Your task to perform on an android device: open app "Google Play Games" Image 0: 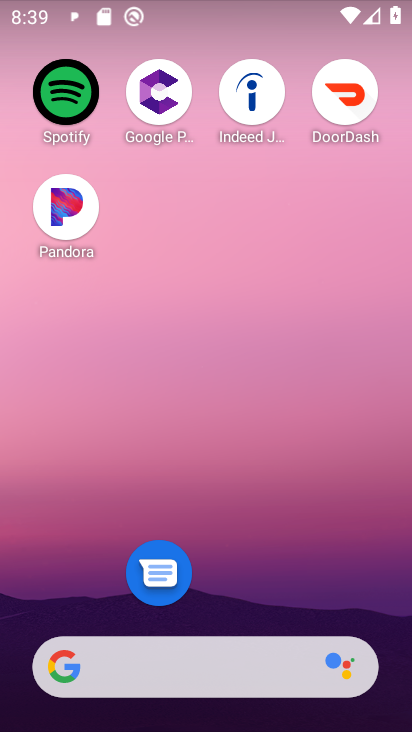
Step 0: drag from (227, 592) to (225, 467)
Your task to perform on an android device: open app "Google Play Games" Image 1: 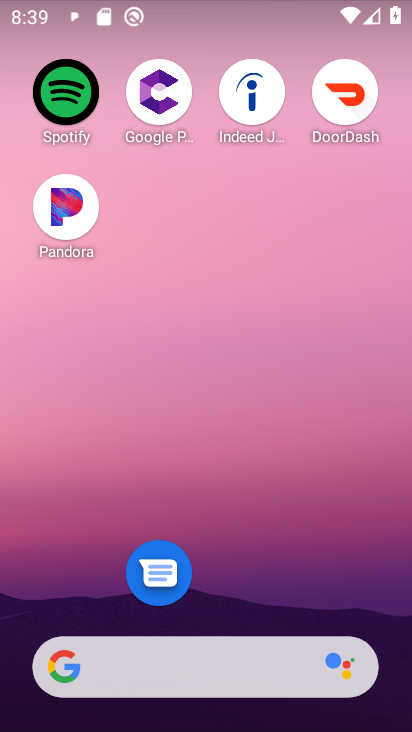
Step 1: drag from (221, 594) to (266, 206)
Your task to perform on an android device: open app "Google Play Games" Image 2: 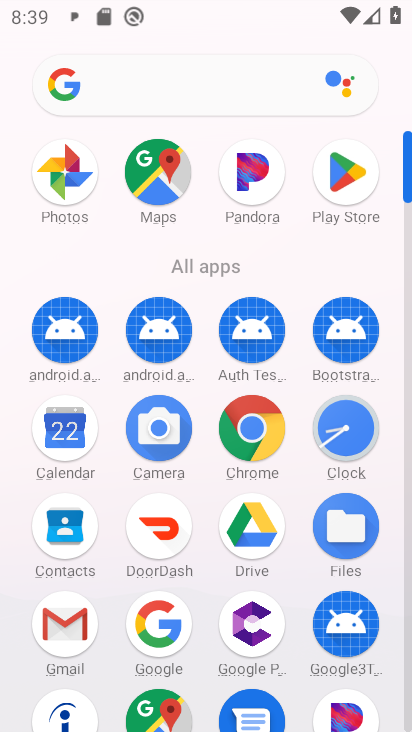
Step 2: click (358, 196)
Your task to perform on an android device: open app "Google Play Games" Image 3: 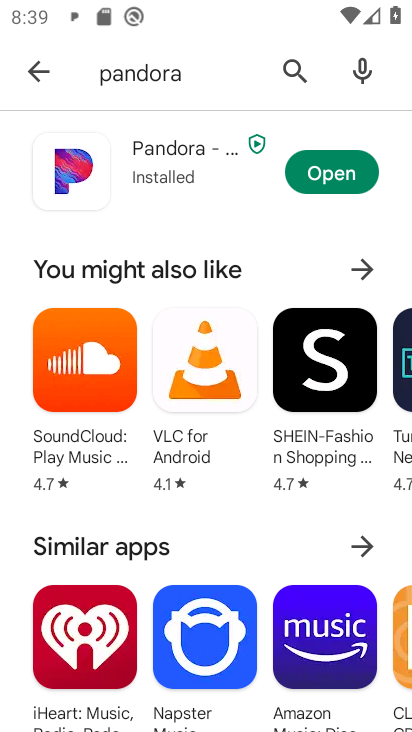
Step 3: click (175, 72)
Your task to perform on an android device: open app "Google Play Games" Image 4: 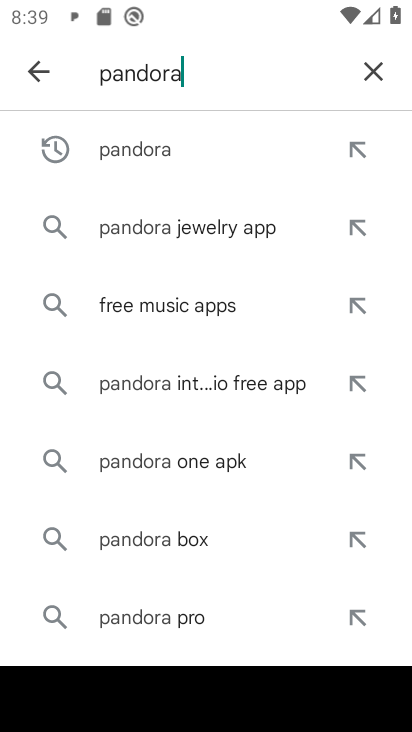
Step 4: click (367, 68)
Your task to perform on an android device: open app "Google Play Games" Image 5: 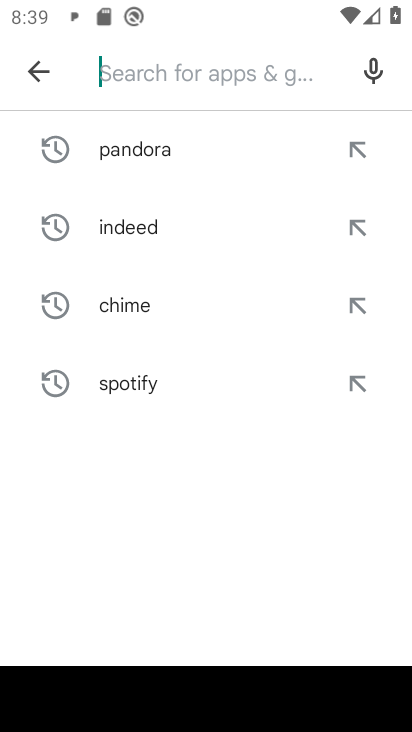
Step 5: type "google play games"
Your task to perform on an android device: open app "Google Play Games" Image 6: 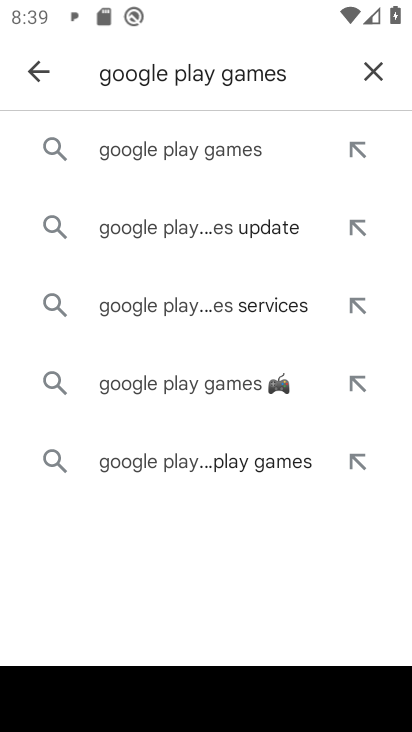
Step 6: click (185, 163)
Your task to perform on an android device: open app "Google Play Games" Image 7: 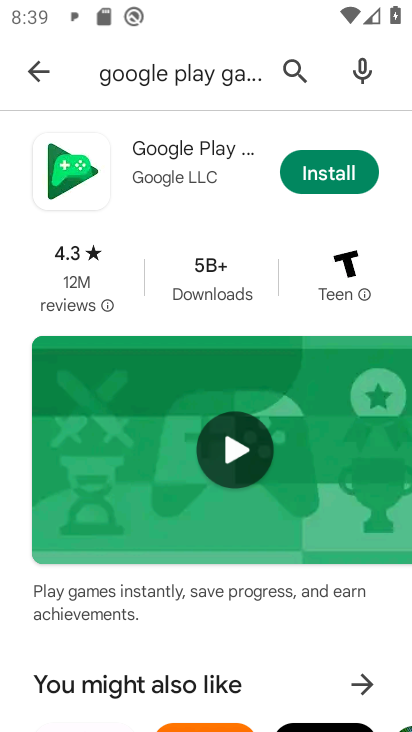
Step 7: click (341, 179)
Your task to perform on an android device: open app "Google Play Games" Image 8: 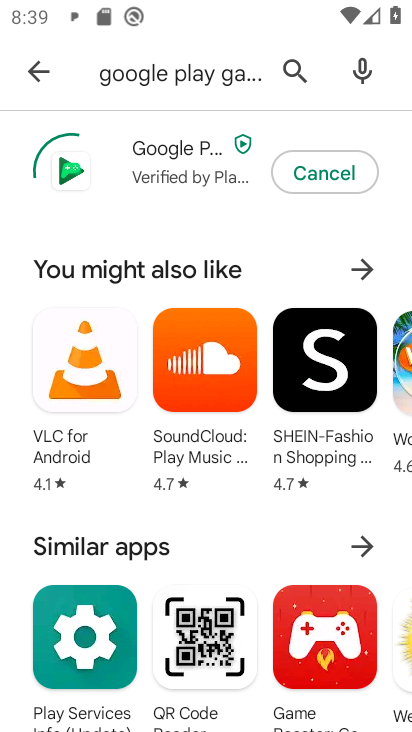
Step 8: click (341, 179)
Your task to perform on an android device: open app "Google Play Games" Image 9: 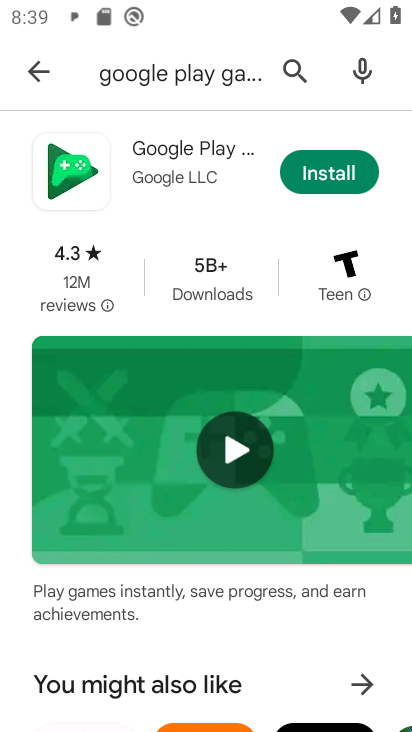
Step 9: task complete